Your task to perform on an android device: make emails show in primary in the gmail app Image 0: 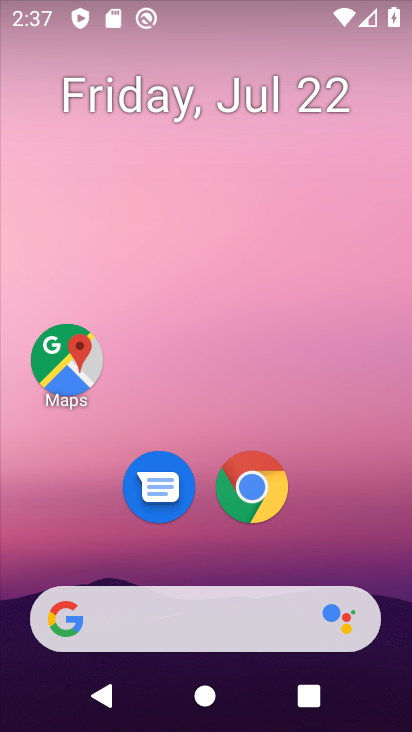
Step 0: drag from (194, 555) to (305, 0)
Your task to perform on an android device: make emails show in primary in the gmail app Image 1: 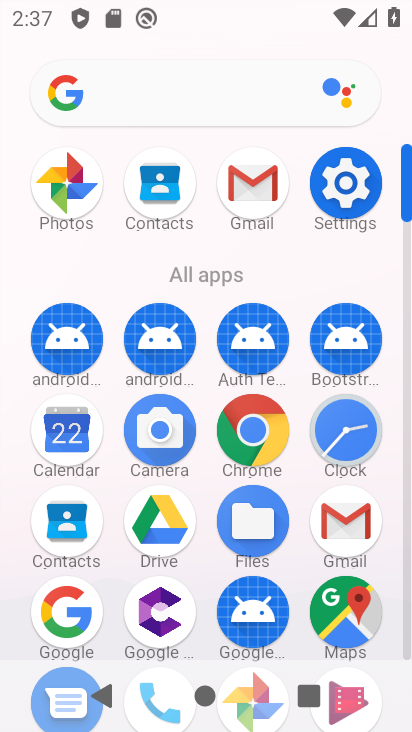
Step 1: click (265, 195)
Your task to perform on an android device: make emails show in primary in the gmail app Image 2: 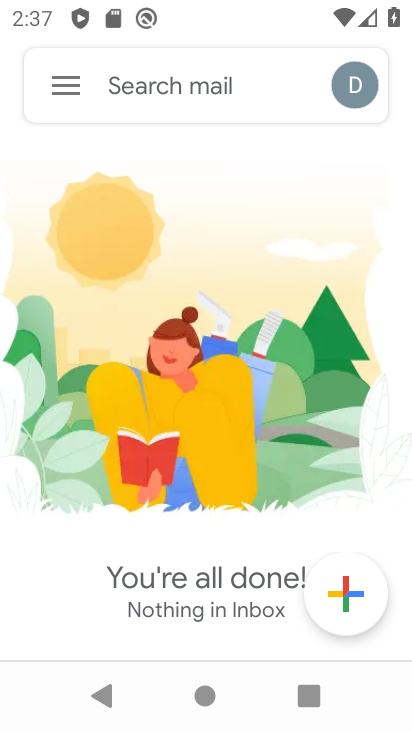
Step 2: click (65, 85)
Your task to perform on an android device: make emails show in primary in the gmail app Image 3: 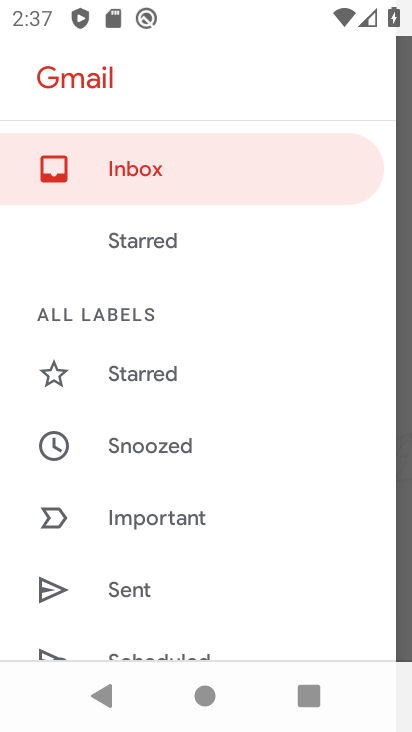
Step 3: drag from (187, 512) to (272, 26)
Your task to perform on an android device: make emails show in primary in the gmail app Image 4: 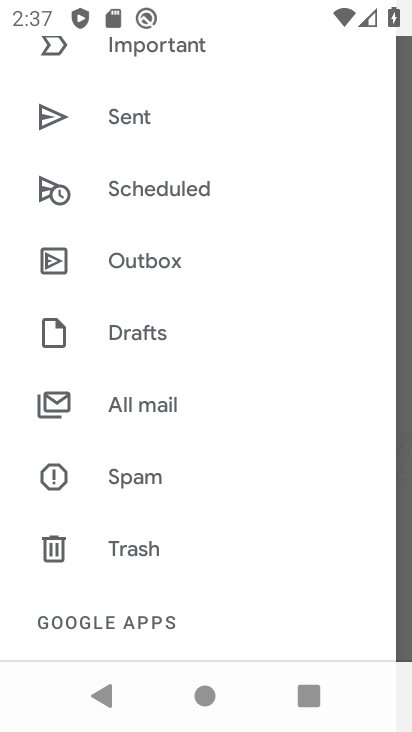
Step 4: drag from (162, 633) to (250, 48)
Your task to perform on an android device: make emails show in primary in the gmail app Image 5: 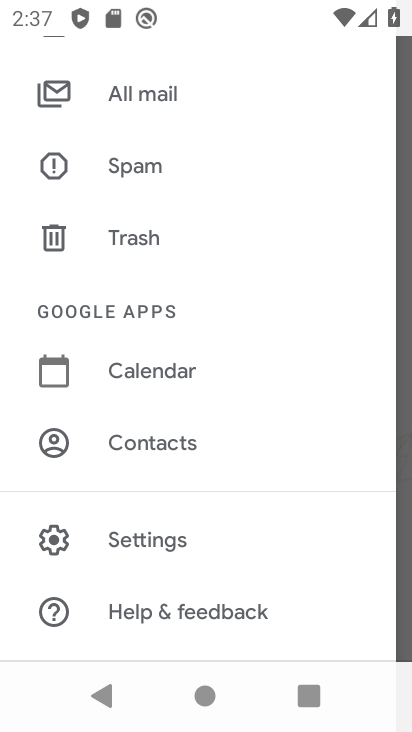
Step 5: click (108, 531)
Your task to perform on an android device: make emails show in primary in the gmail app Image 6: 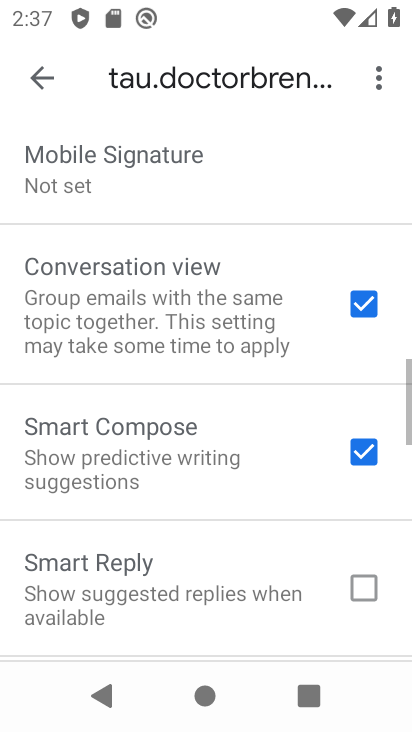
Step 6: task complete